Your task to perform on an android device: Go to Reddit.com Image 0: 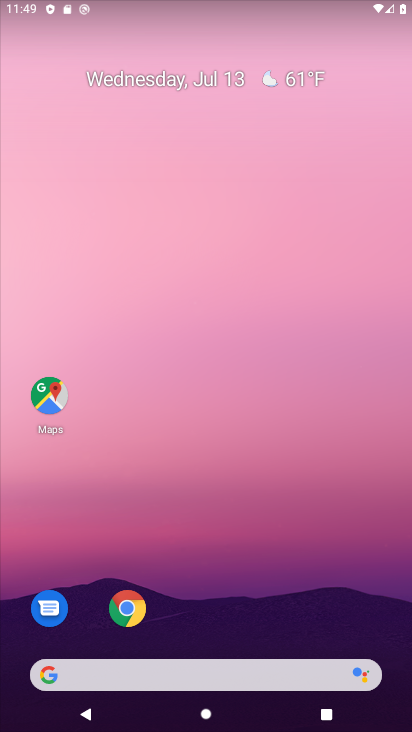
Step 0: drag from (199, 611) to (219, 352)
Your task to perform on an android device: Go to Reddit.com Image 1: 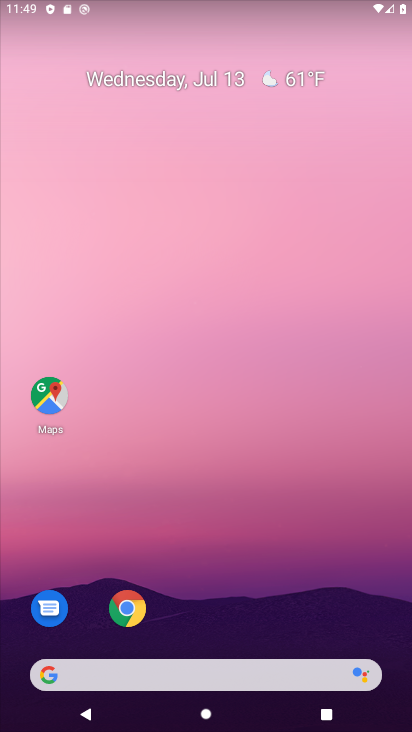
Step 1: drag from (207, 626) to (253, 270)
Your task to perform on an android device: Go to Reddit.com Image 2: 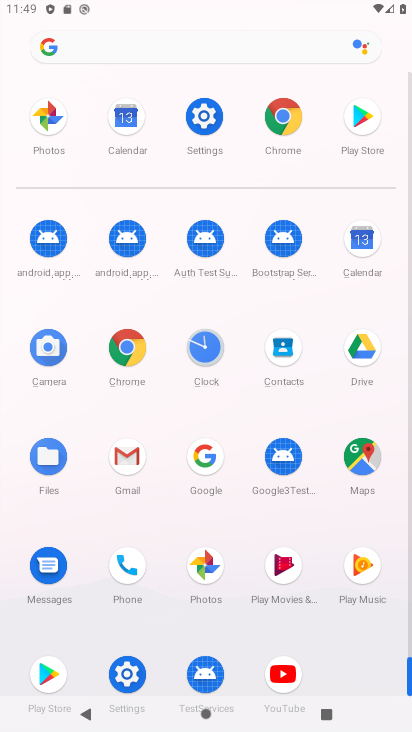
Step 2: drag from (175, 568) to (175, 289)
Your task to perform on an android device: Go to Reddit.com Image 3: 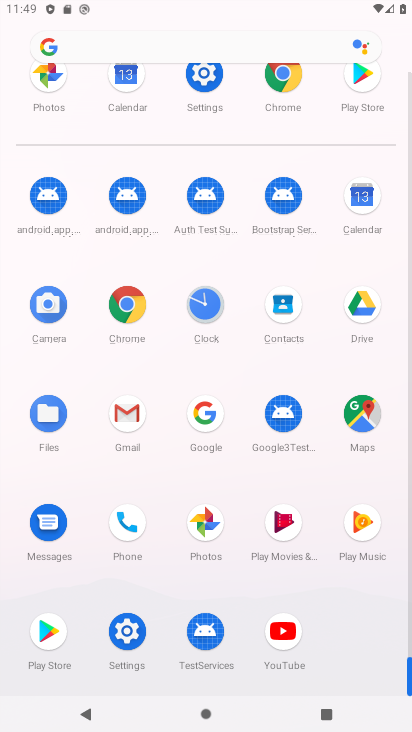
Step 3: drag from (170, 581) to (198, 366)
Your task to perform on an android device: Go to Reddit.com Image 4: 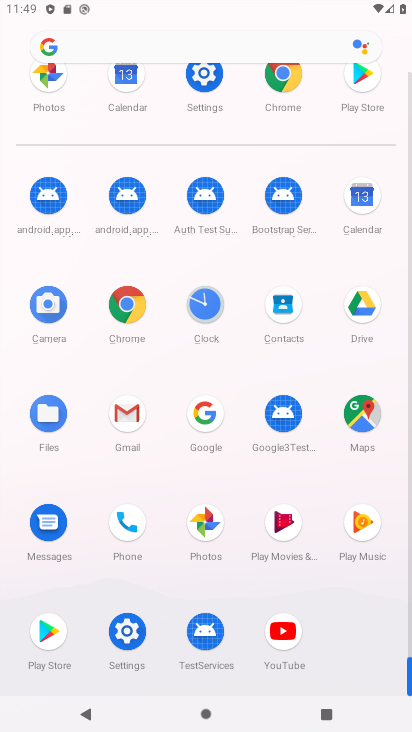
Step 4: drag from (170, 591) to (179, 411)
Your task to perform on an android device: Go to Reddit.com Image 5: 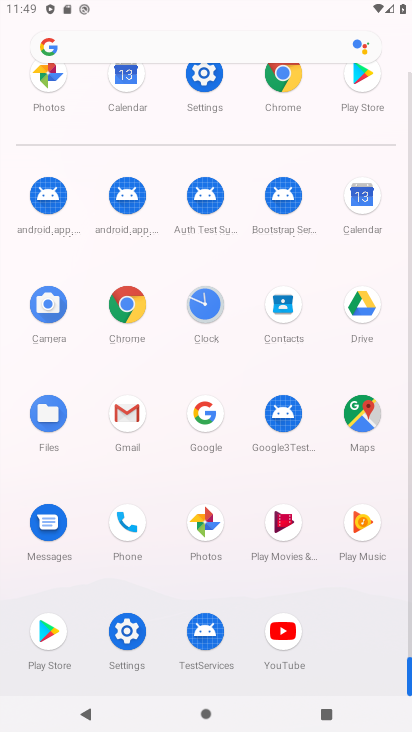
Step 5: drag from (184, 557) to (198, 422)
Your task to perform on an android device: Go to Reddit.com Image 6: 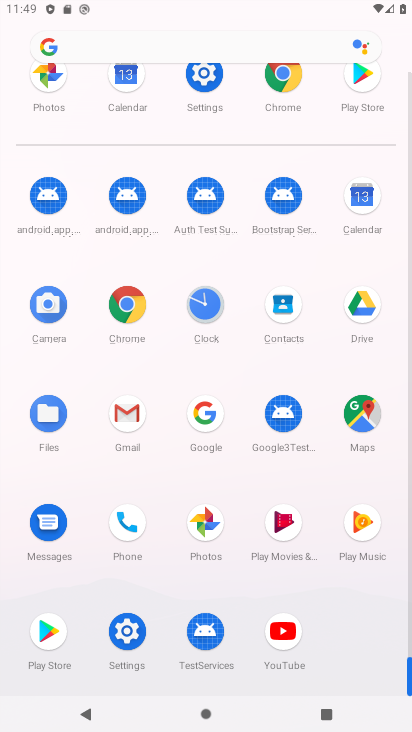
Step 6: drag from (158, 611) to (170, 423)
Your task to perform on an android device: Go to Reddit.com Image 7: 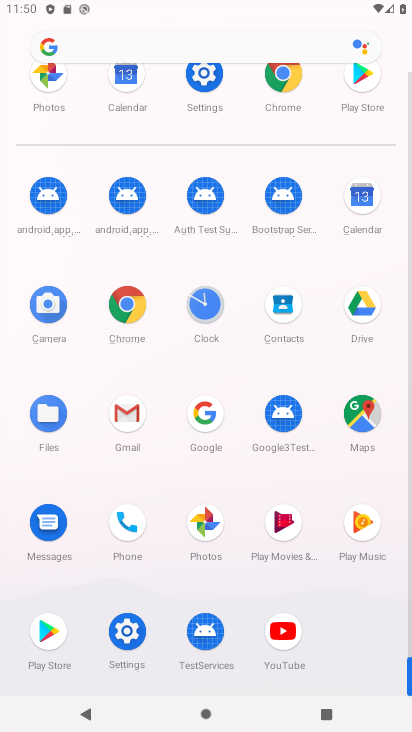
Step 7: click (124, 303)
Your task to perform on an android device: Go to Reddit.com Image 8: 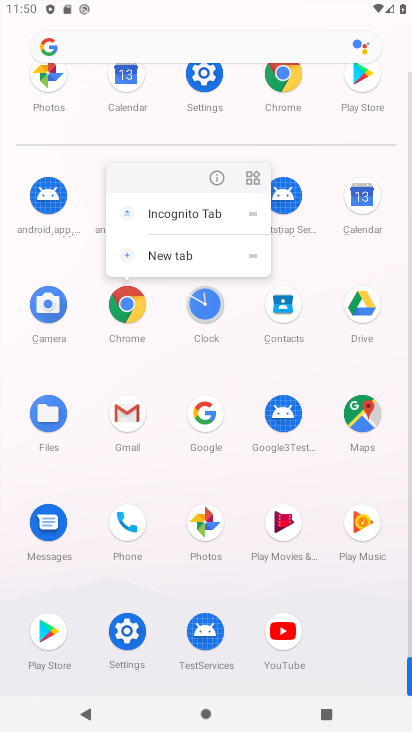
Step 8: click (214, 185)
Your task to perform on an android device: Go to Reddit.com Image 9: 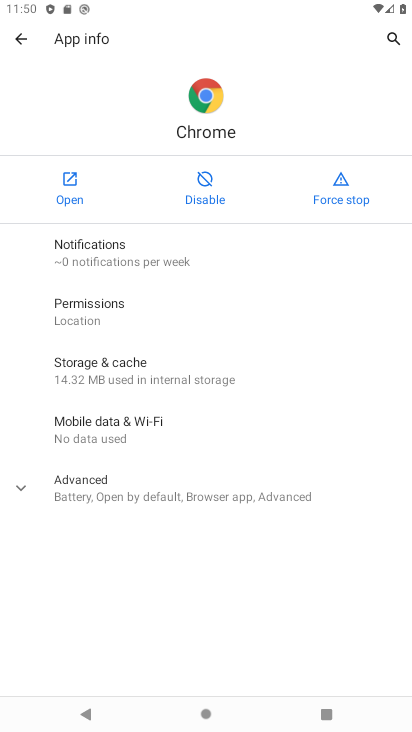
Step 9: click (76, 177)
Your task to perform on an android device: Go to Reddit.com Image 10: 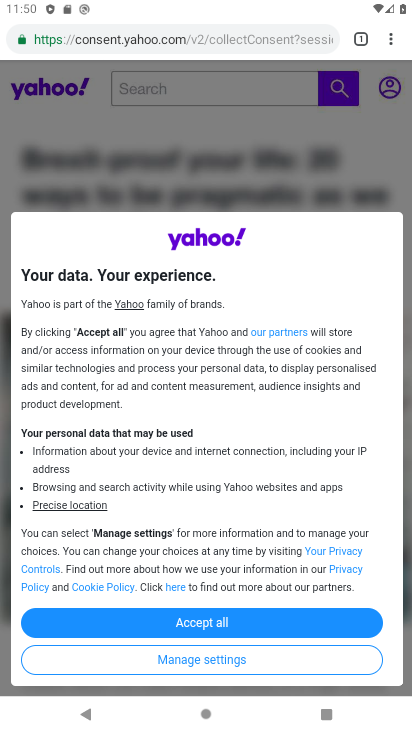
Step 10: drag from (241, 360) to (261, 203)
Your task to perform on an android device: Go to Reddit.com Image 11: 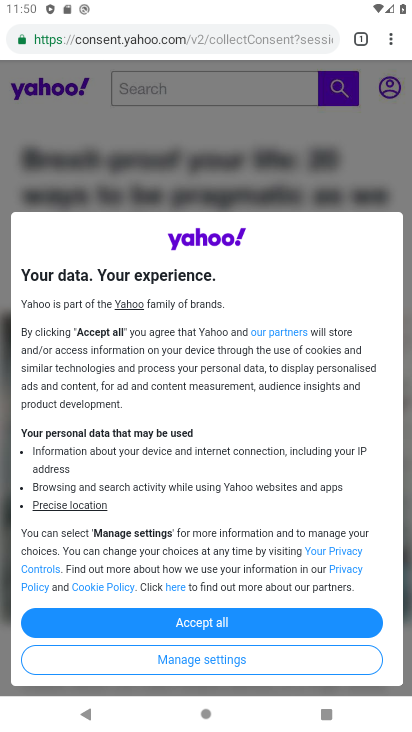
Step 11: click (151, 38)
Your task to perform on an android device: Go to Reddit.com Image 12: 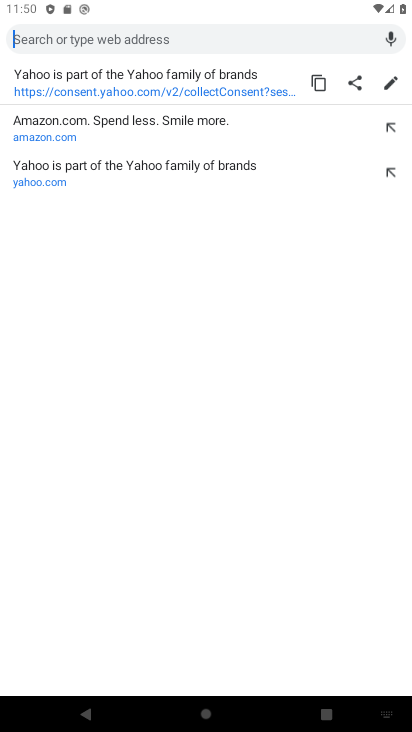
Step 12: type ""
Your task to perform on an android device: Go to Reddit.com Image 13: 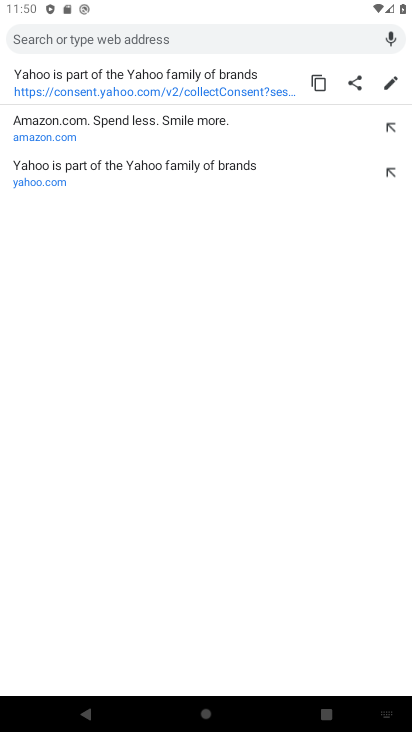
Step 13: type "Reddit.com"
Your task to perform on an android device: Go to Reddit.com Image 14: 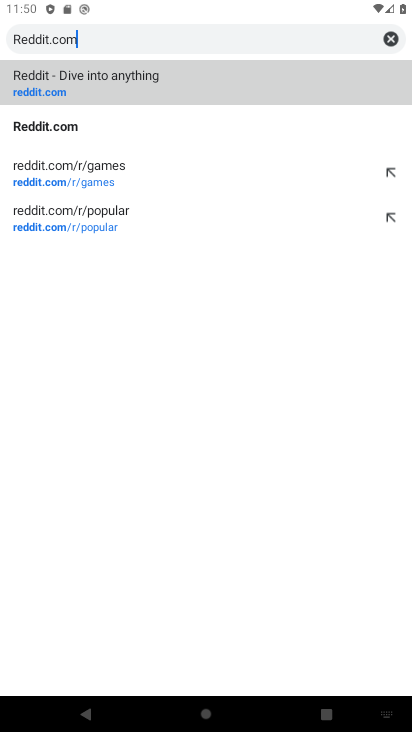
Step 14: type ""
Your task to perform on an android device: Go to Reddit.com Image 15: 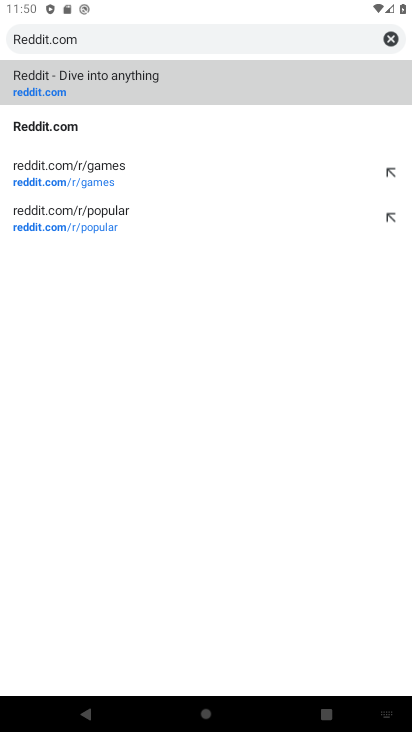
Step 15: click (53, 73)
Your task to perform on an android device: Go to Reddit.com Image 16: 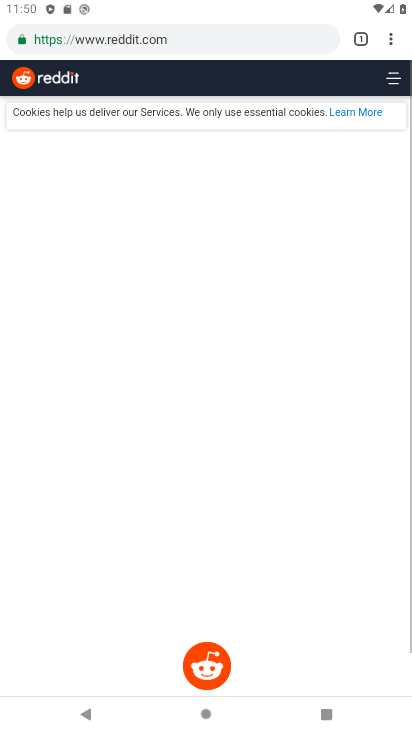
Step 16: task complete